Your task to perform on an android device: Turn off the flashlight Image 0: 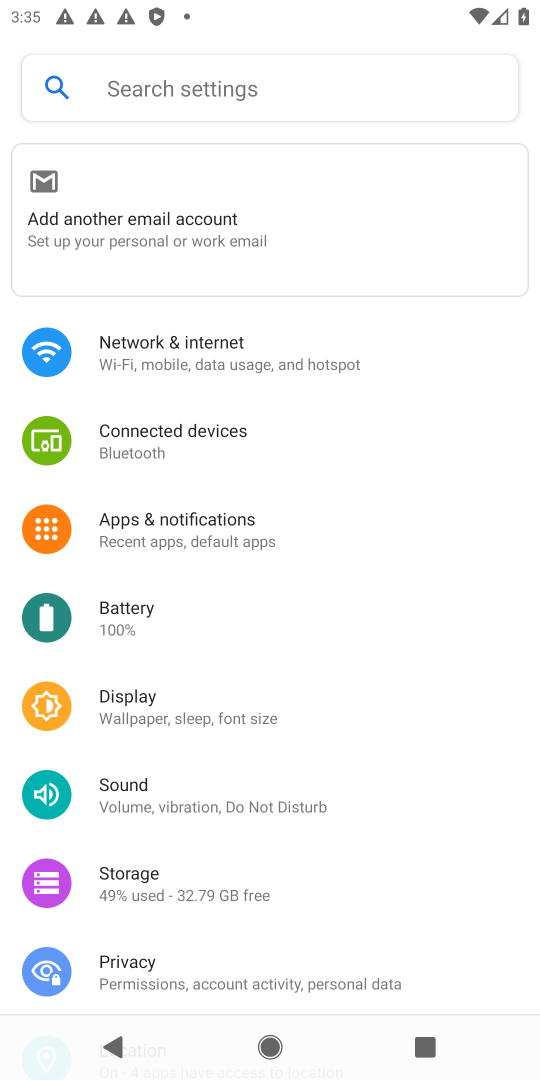
Step 0: click (139, 711)
Your task to perform on an android device: Turn off the flashlight Image 1: 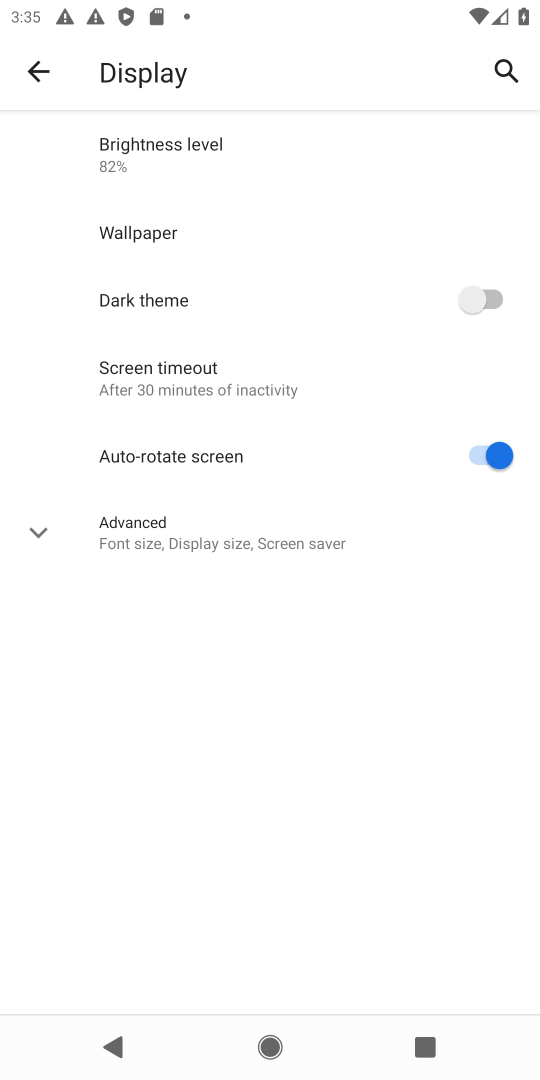
Step 1: click (181, 389)
Your task to perform on an android device: Turn off the flashlight Image 2: 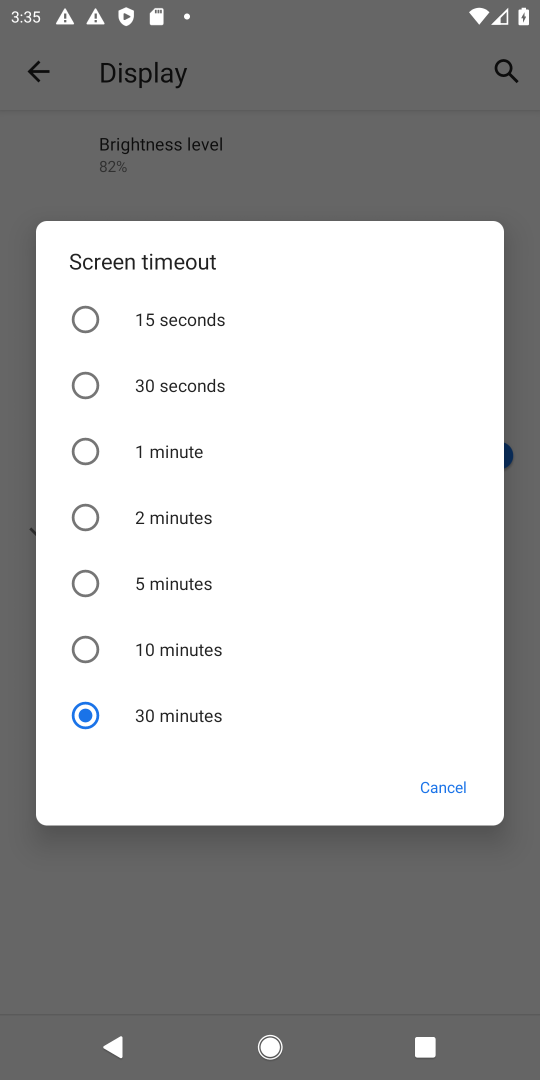
Step 2: task complete